Your task to perform on an android device: change the clock display to show seconds Image 0: 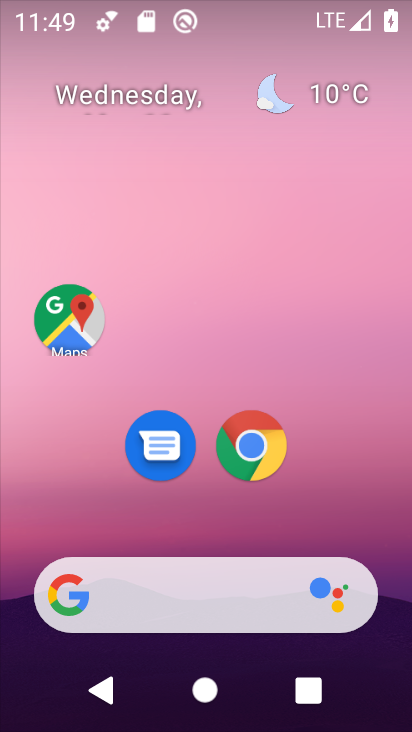
Step 0: drag from (172, 510) to (293, 68)
Your task to perform on an android device: change the clock display to show seconds Image 1: 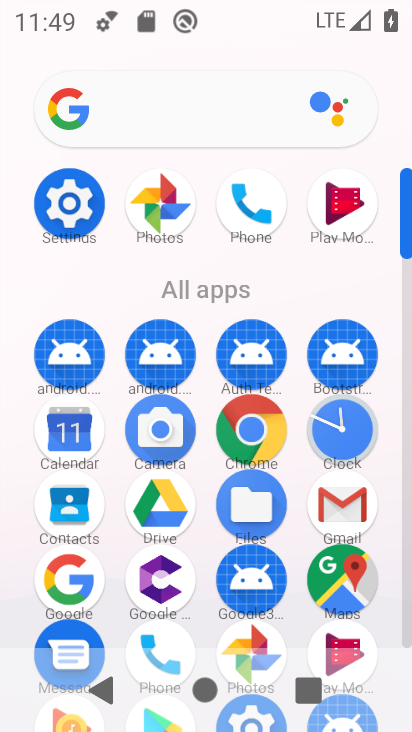
Step 1: click (341, 434)
Your task to perform on an android device: change the clock display to show seconds Image 2: 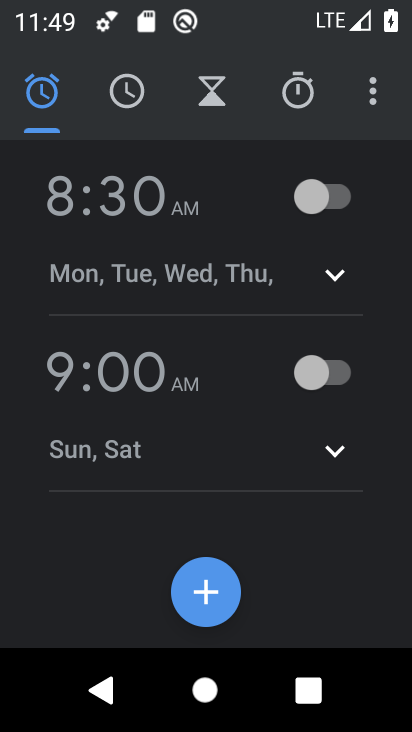
Step 2: click (374, 77)
Your task to perform on an android device: change the clock display to show seconds Image 3: 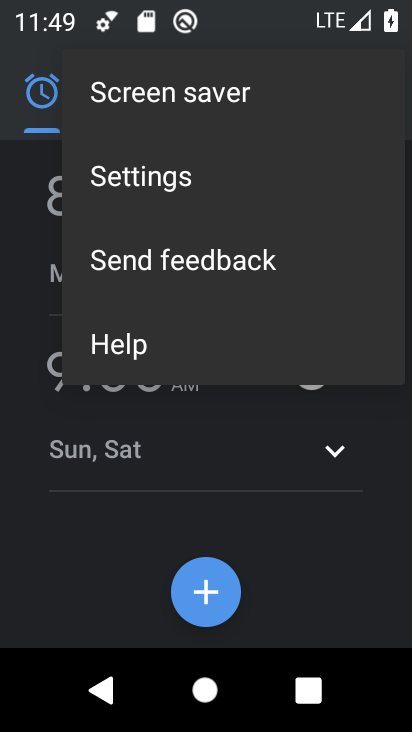
Step 3: click (190, 147)
Your task to perform on an android device: change the clock display to show seconds Image 4: 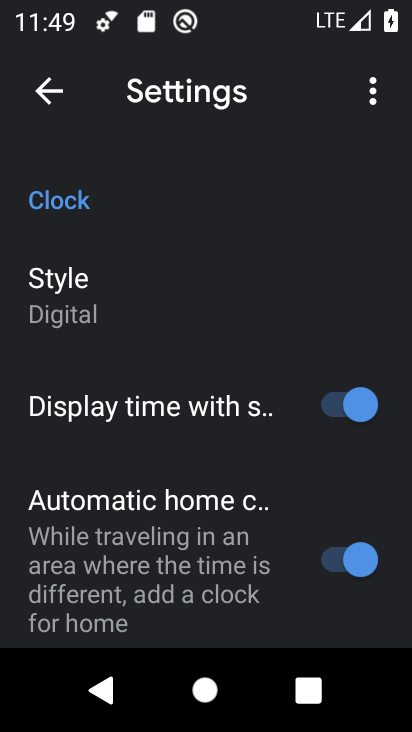
Step 4: task complete